Your task to perform on an android device: turn off wifi Image 0: 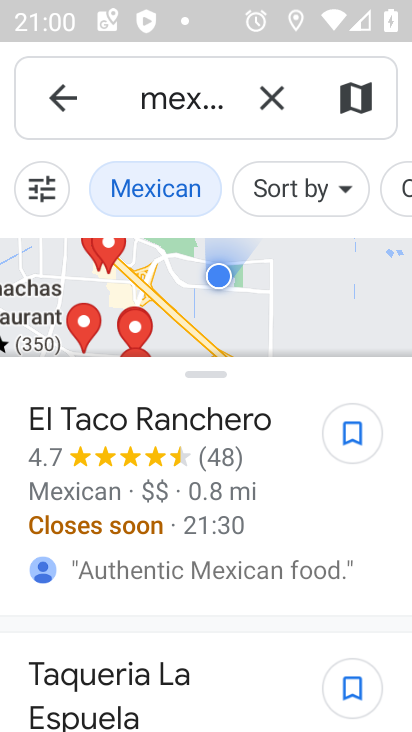
Step 0: press home button
Your task to perform on an android device: turn off wifi Image 1: 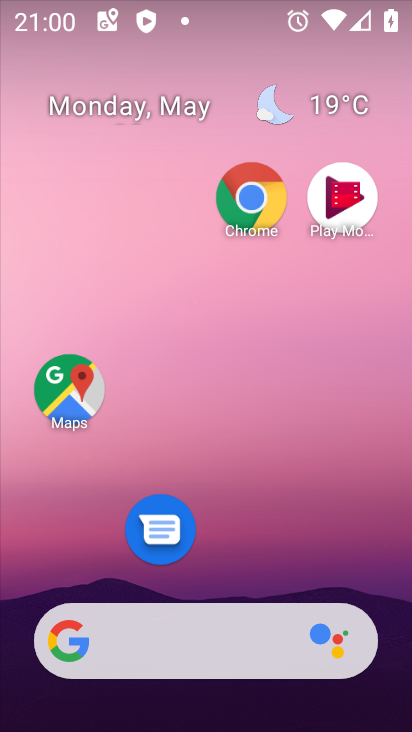
Step 1: drag from (229, 557) to (156, 4)
Your task to perform on an android device: turn off wifi Image 2: 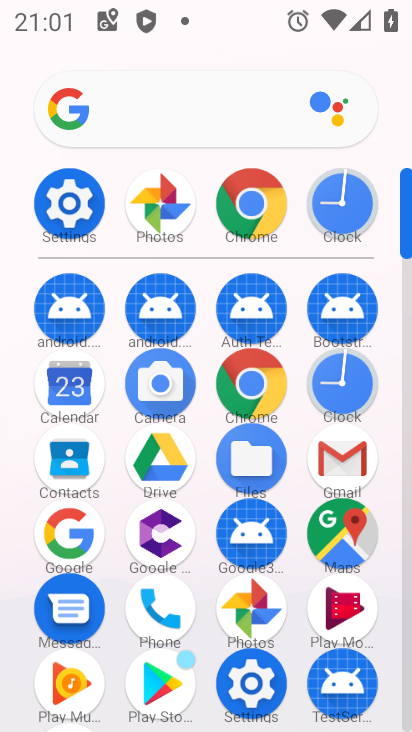
Step 2: click (69, 214)
Your task to perform on an android device: turn off wifi Image 3: 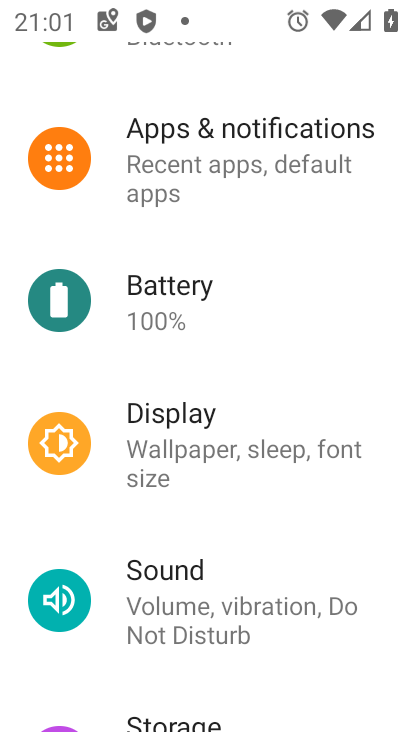
Step 3: drag from (219, 178) to (144, 598)
Your task to perform on an android device: turn off wifi Image 4: 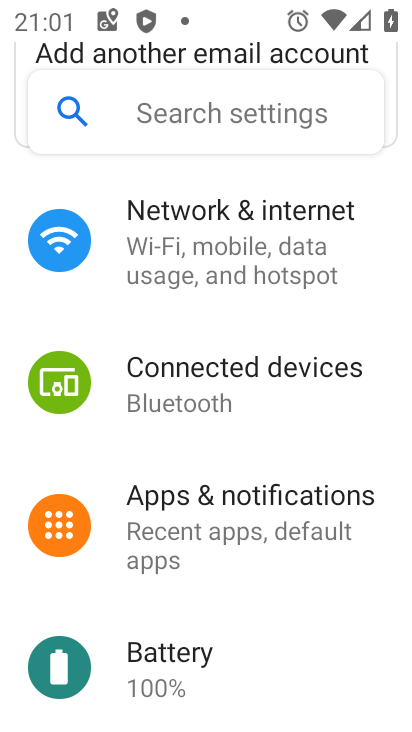
Step 4: click (226, 239)
Your task to perform on an android device: turn off wifi Image 5: 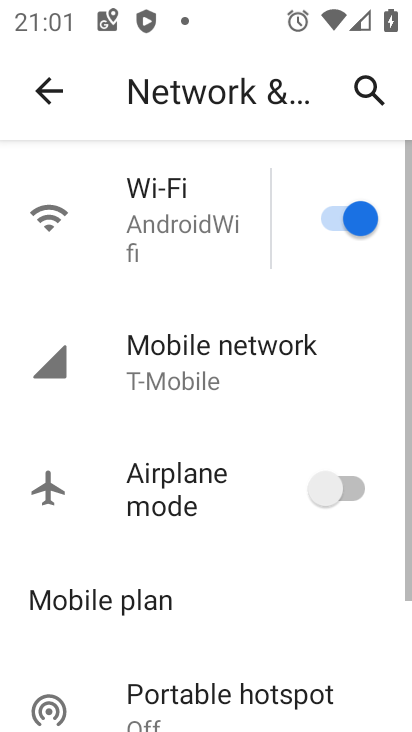
Step 5: click (340, 229)
Your task to perform on an android device: turn off wifi Image 6: 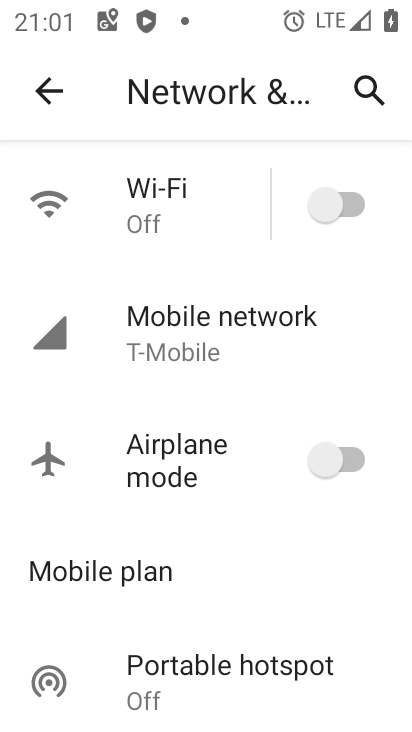
Step 6: task complete